Your task to perform on an android device: Open my contact list Image 0: 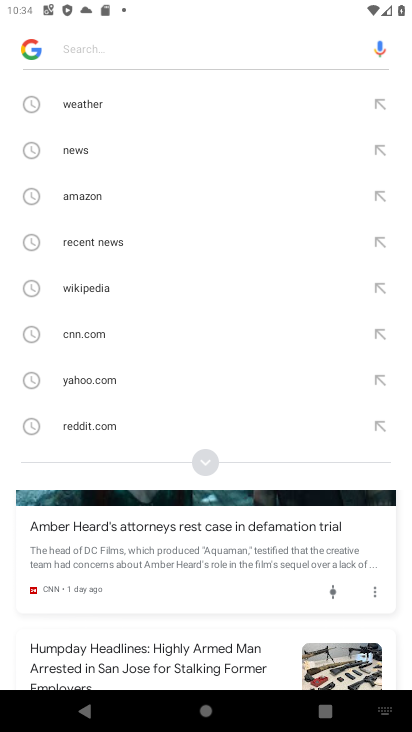
Step 0: press back button
Your task to perform on an android device: Open my contact list Image 1: 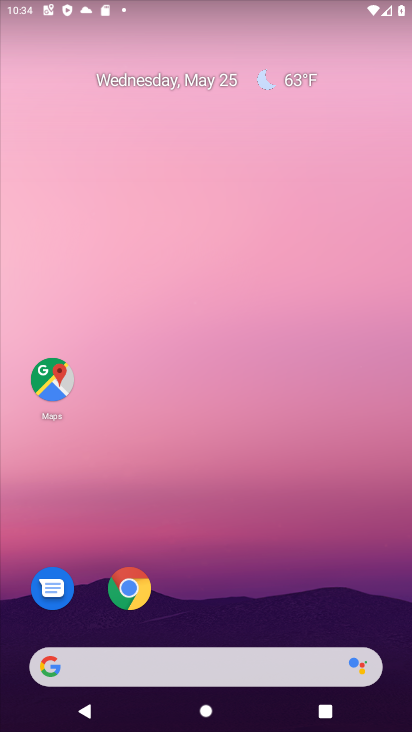
Step 1: drag from (294, 587) to (305, 7)
Your task to perform on an android device: Open my contact list Image 2: 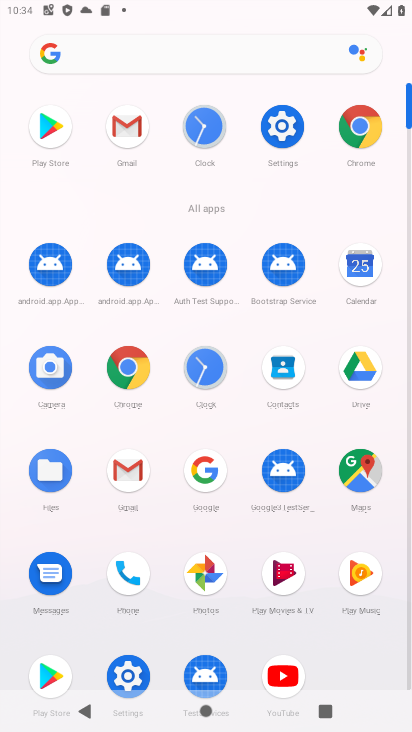
Step 2: click (281, 385)
Your task to perform on an android device: Open my contact list Image 3: 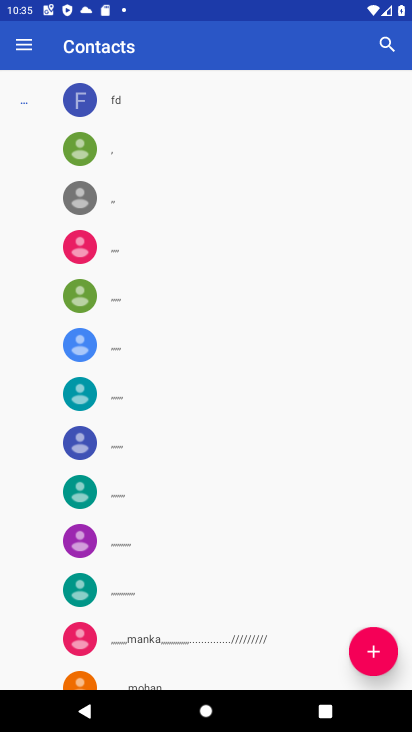
Step 3: task complete